Your task to perform on an android device: delete location history Image 0: 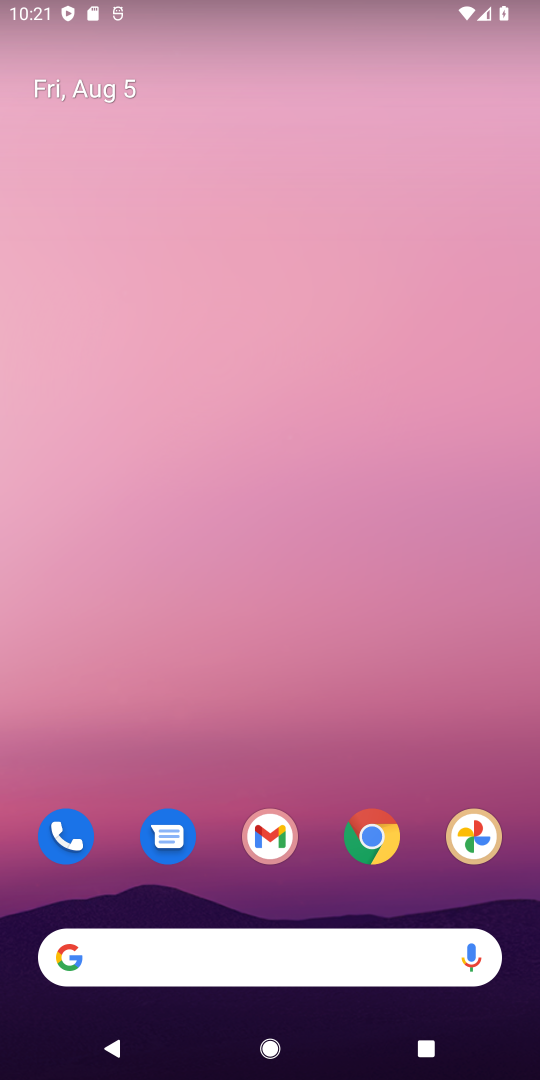
Step 0: drag from (299, 786) to (365, 106)
Your task to perform on an android device: delete location history Image 1: 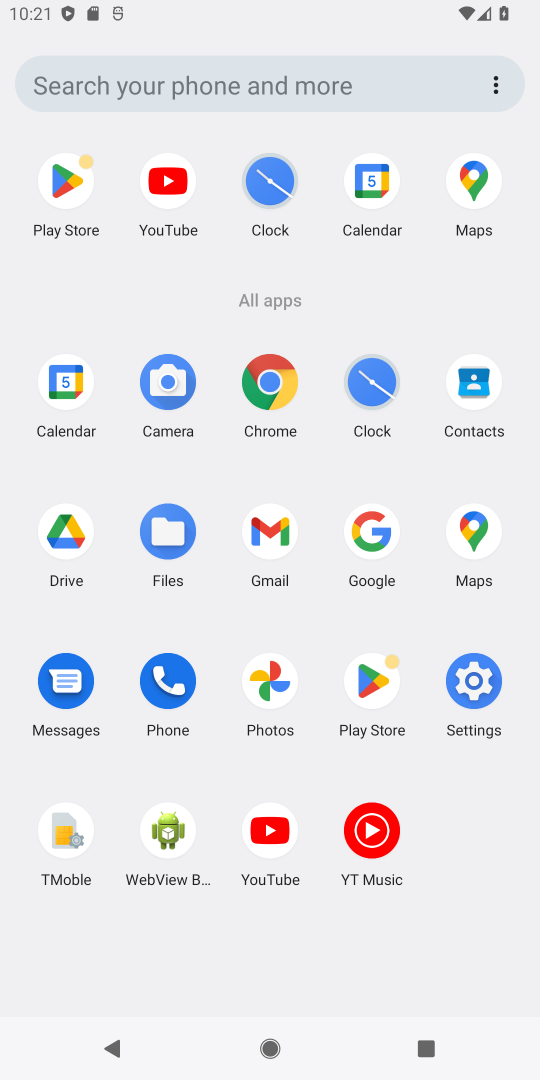
Step 1: click (469, 535)
Your task to perform on an android device: delete location history Image 2: 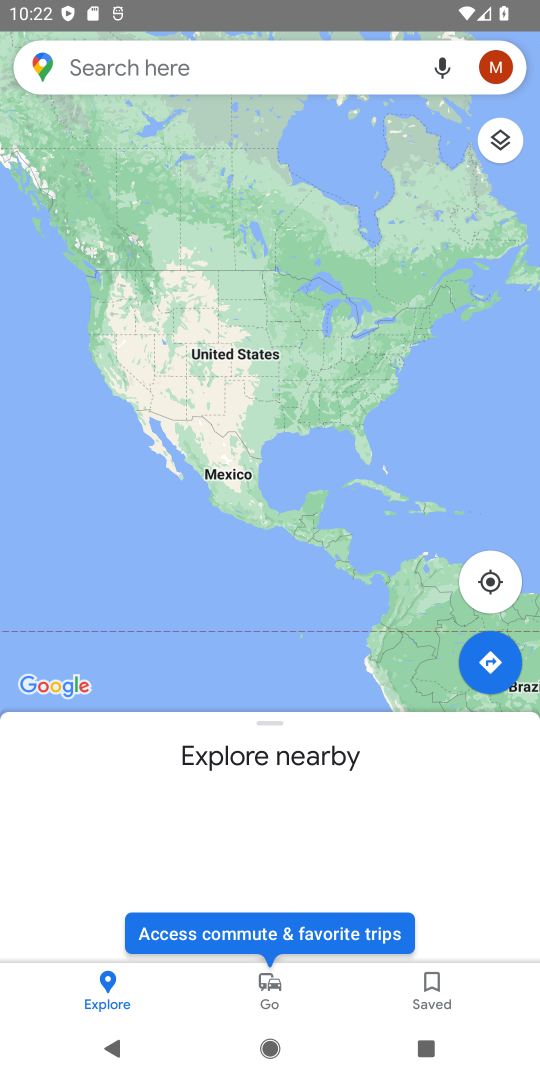
Step 2: click (492, 70)
Your task to perform on an android device: delete location history Image 3: 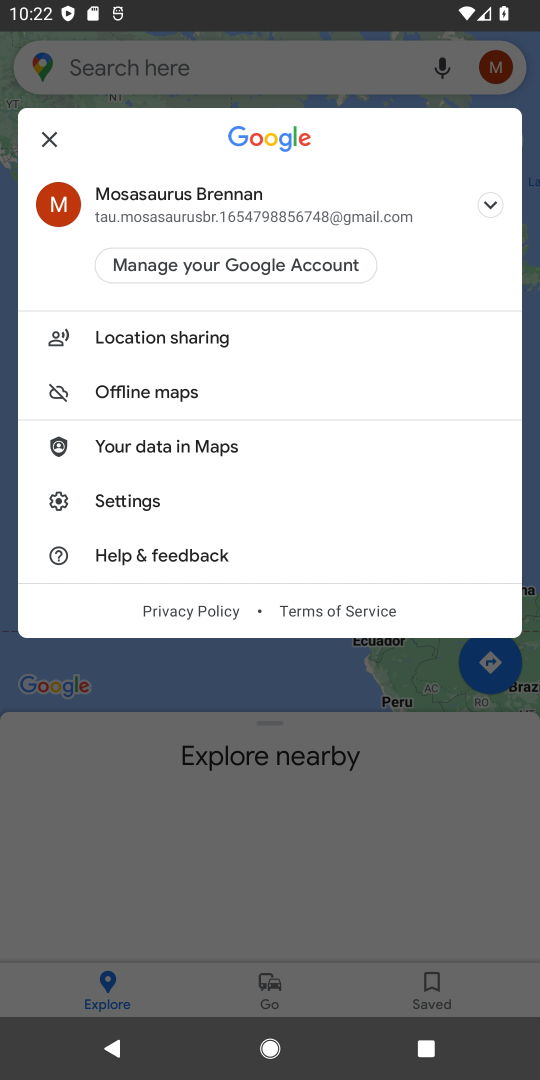
Step 3: click (137, 498)
Your task to perform on an android device: delete location history Image 4: 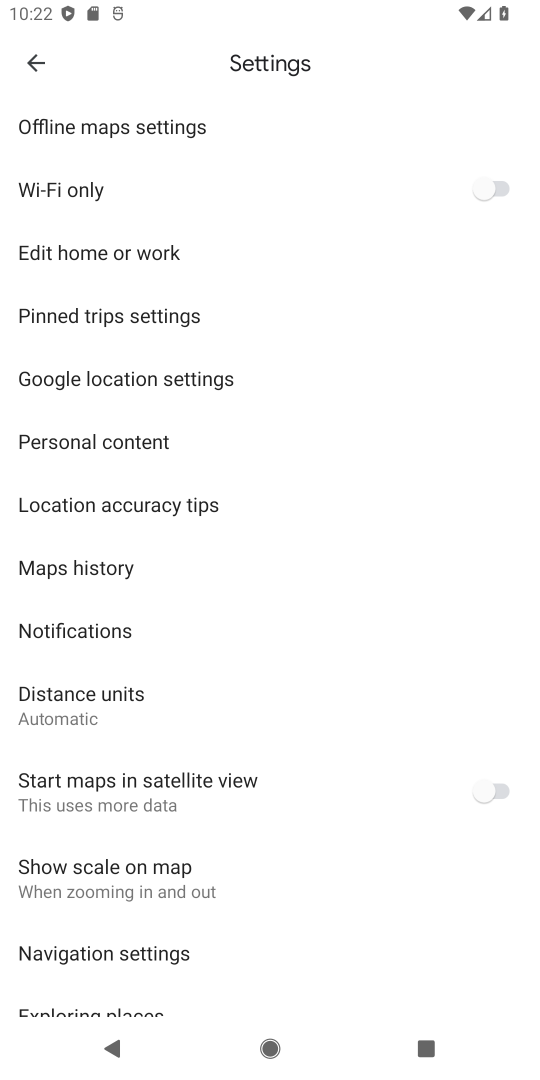
Step 4: click (110, 574)
Your task to perform on an android device: delete location history Image 5: 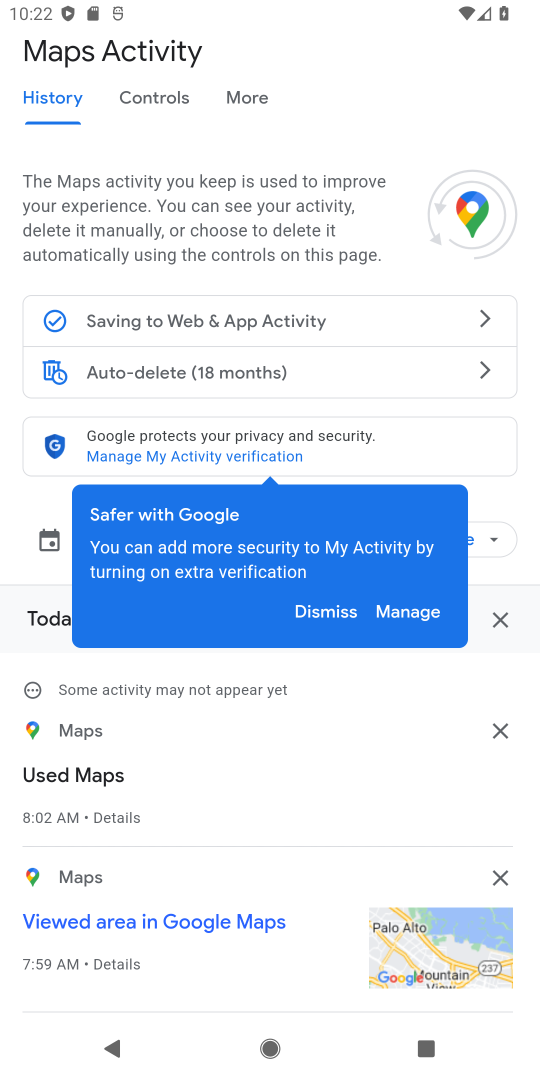
Step 5: click (330, 621)
Your task to perform on an android device: delete location history Image 6: 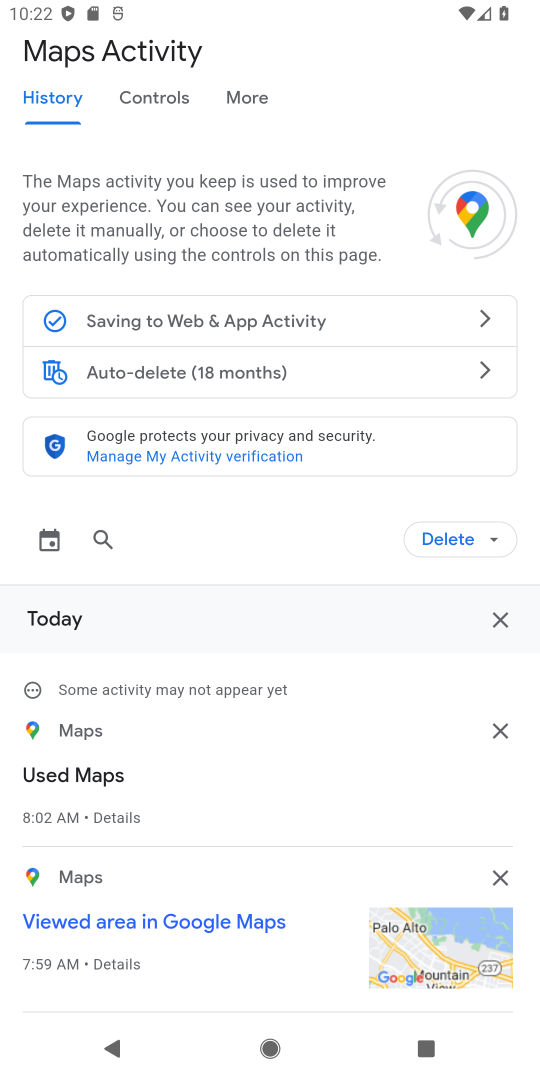
Step 6: click (505, 548)
Your task to perform on an android device: delete location history Image 7: 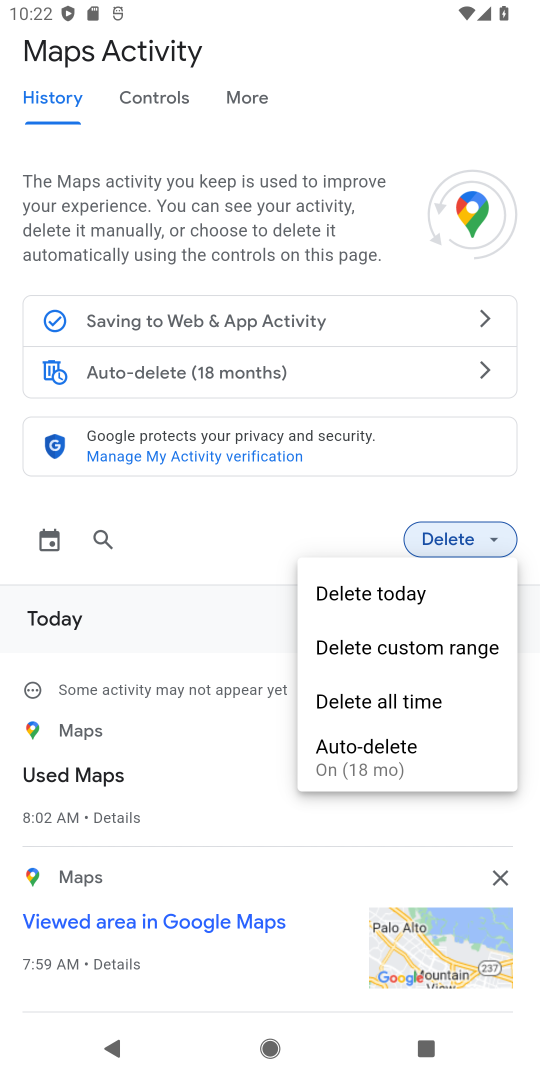
Step 7: click (348, 699)
Your task to perform on an android device: delete location history Image 8: 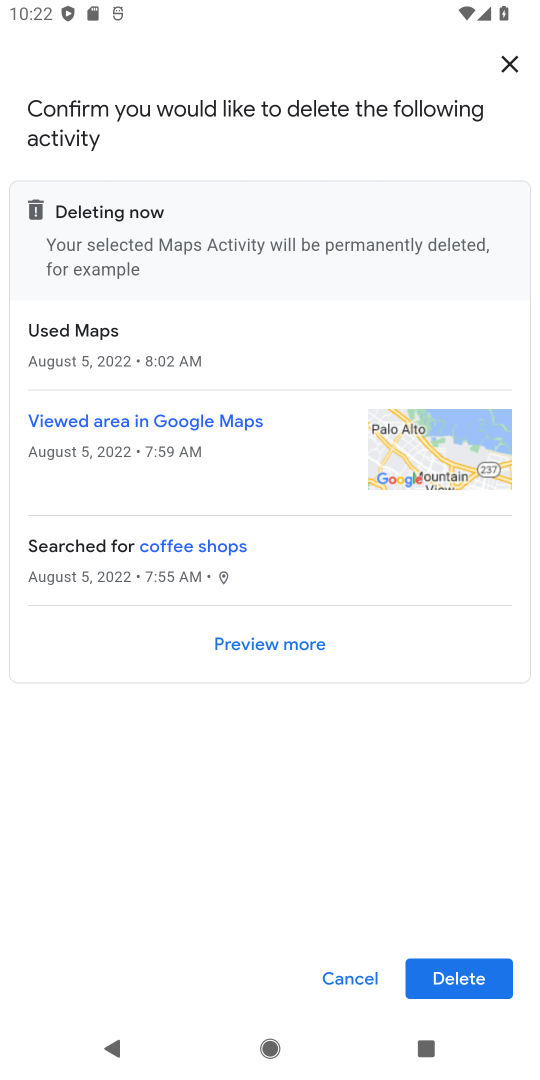
Step 8: click (458, 983)
Your task to perform on an android device: delete location history Image 9: 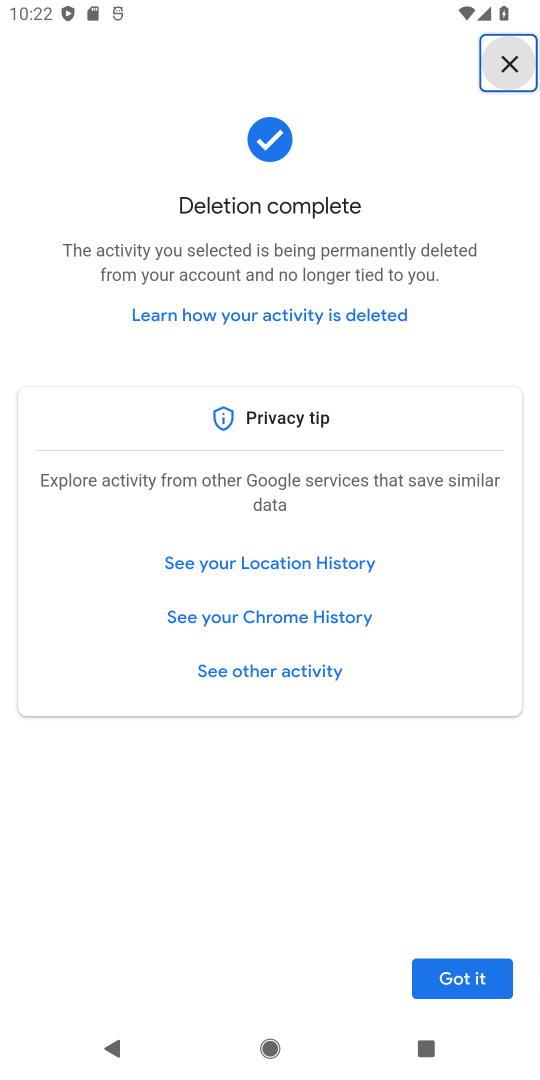
Step 9: task complete